Your task to perform on an android device: Open Google Image 0: 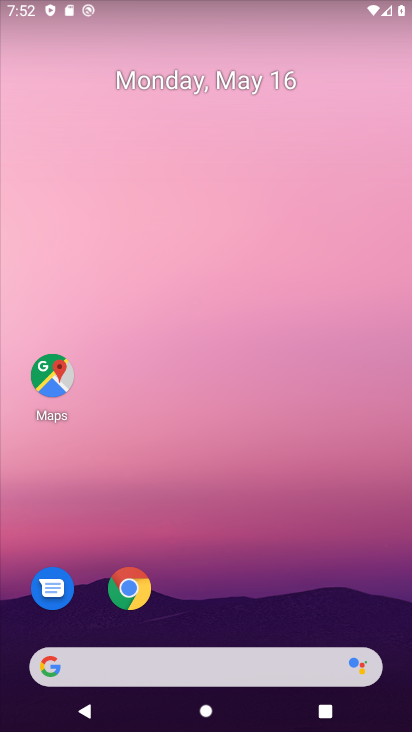
Step 0: drag from (329, 488) to (349, 121)
Your task to perform on an android device: Open Google Image 1: 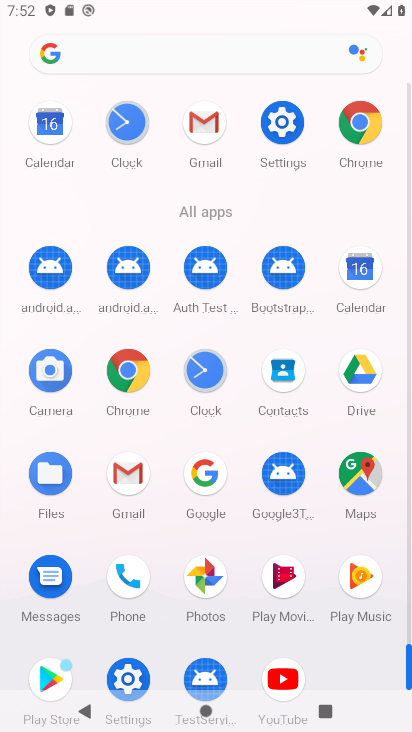
Step 1: click (204, 485)
Your task to perform on an android device: Open Google Image 2: 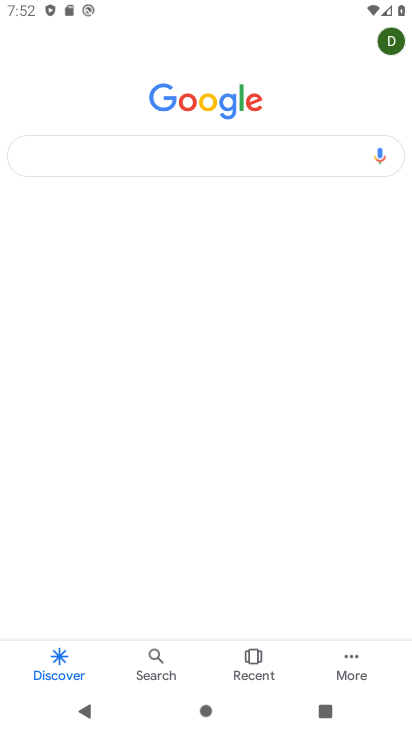
Step 2: task complete